Your task to perform on an android device: Show me the alarms in the clock app Image 0: 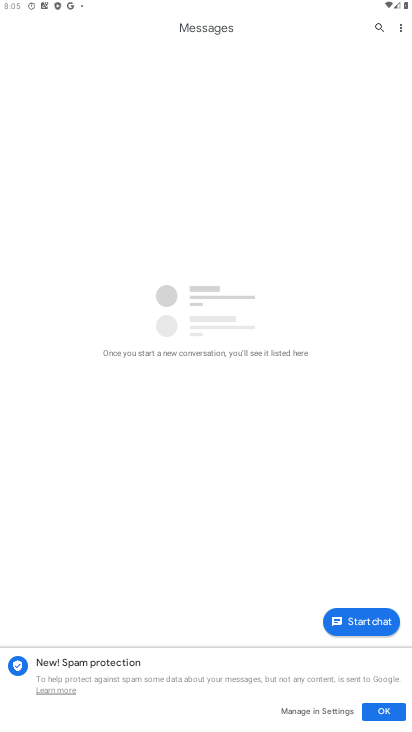
Step 0: press home button
Your task to perform on an android device: Show me the alarms in the clock app Image 1: 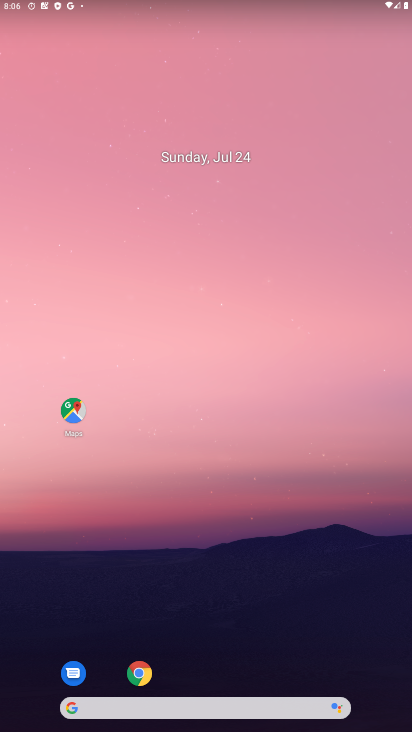
Step 1: click (271, 184)
Your task to perform on an android device: Show me the alarms in the clock app Image 2: 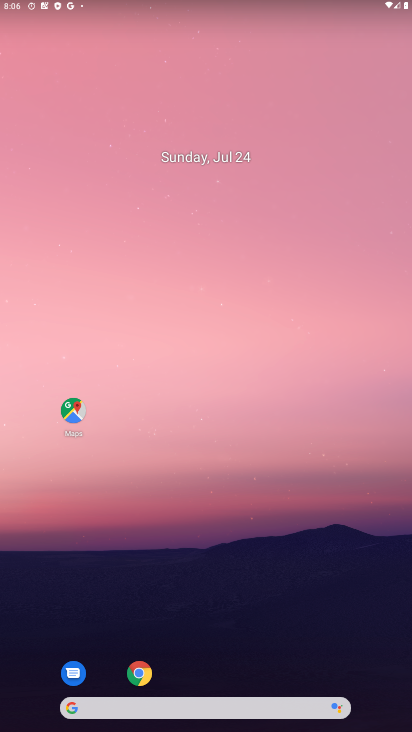
Step 2: drag from (107, 372) to (224, 2)
Your task to perform on an android device: Show me the alarms in the clock app Image 3: 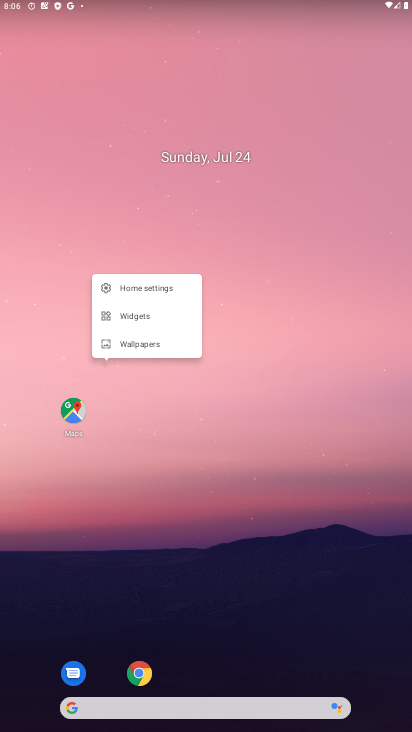
Step 3: drag from (85, 640) to (210, 377)
Your task to perform on an android device: Show me the alarms in the clock app Image 4: 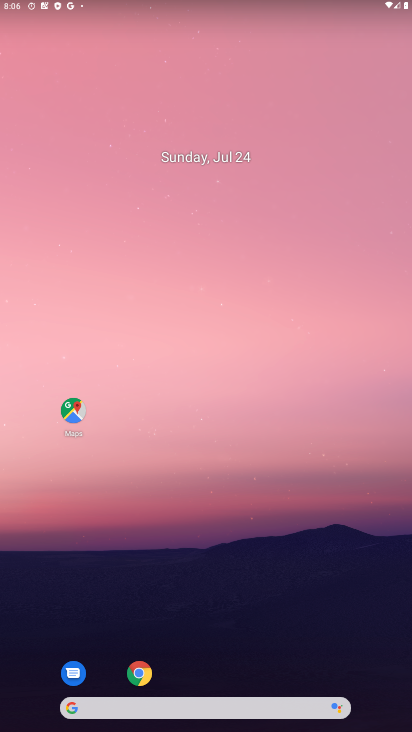
Step 4: drag from (54, 655) to (201, 254)
Your task to perform on an android device: Show me the alarms in the clock app Image 5: 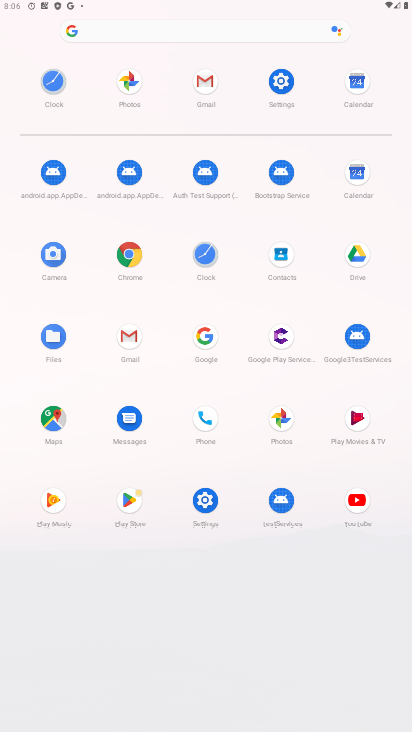
Step 5: click (201, 257)
Your task to perform on an android device: Show me the alarms in the clock app Image 6: 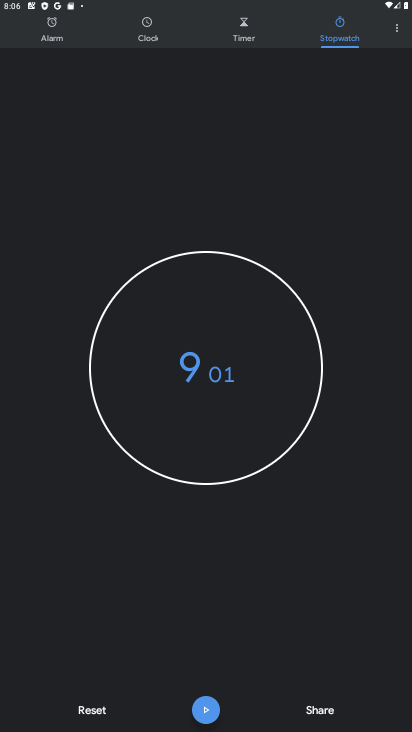
Step 6: click (56, 39)
Your task to perform on an android device: Show me the alarms in the clock app Image 7: 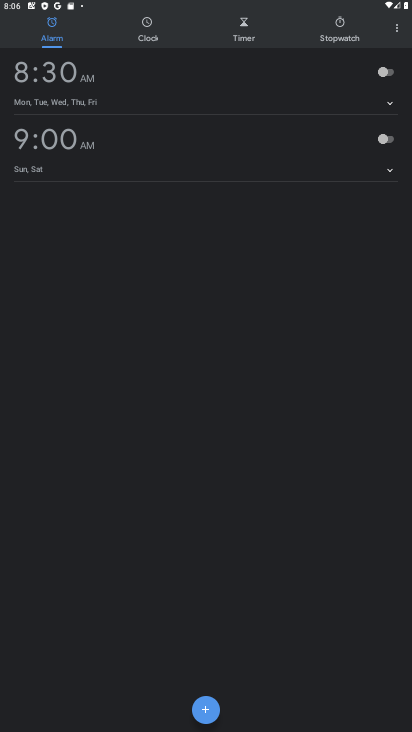
Step 7: task complete